Your task to perform on an android device: turn off translation in the chrome app Image 0: 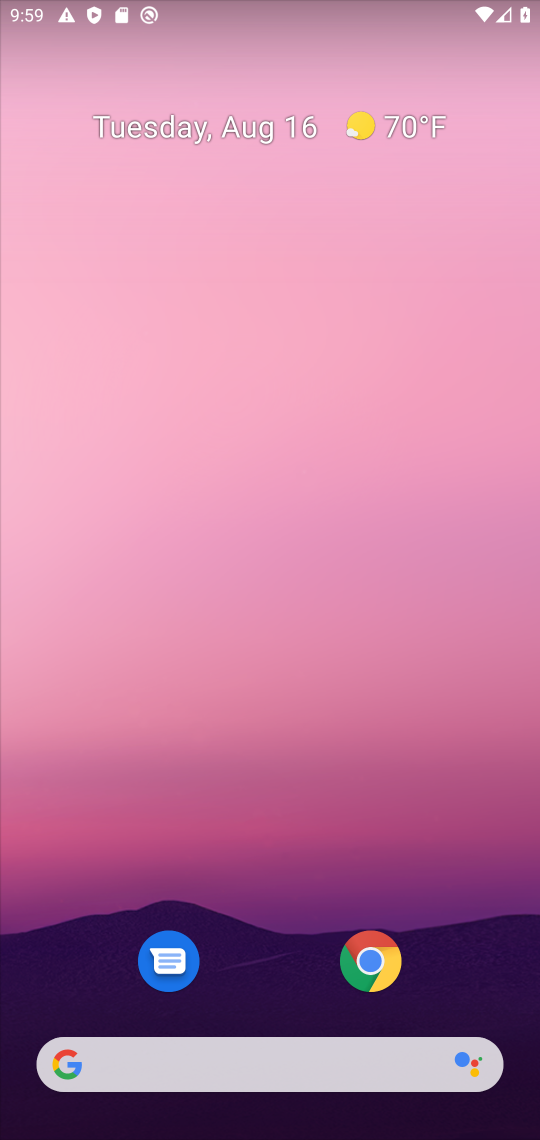
Step 0: click (372, 953)
Your task to perform on an android device: turn off translation in the chrome app Image 1: 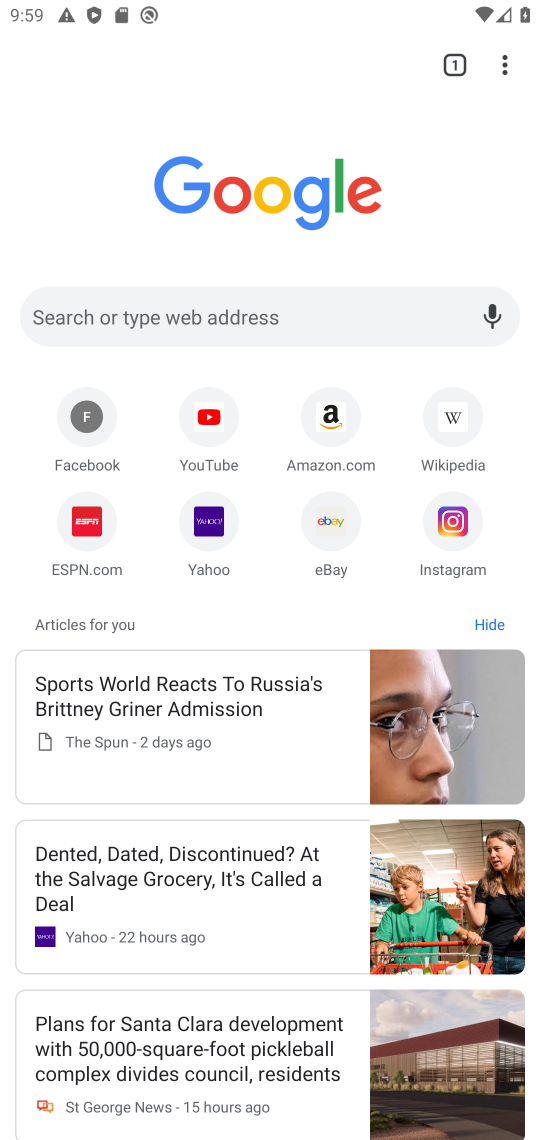
Step 1: click (518, 75)
Your task to perform on an android device: turn off translation in the chrome app Image 2: 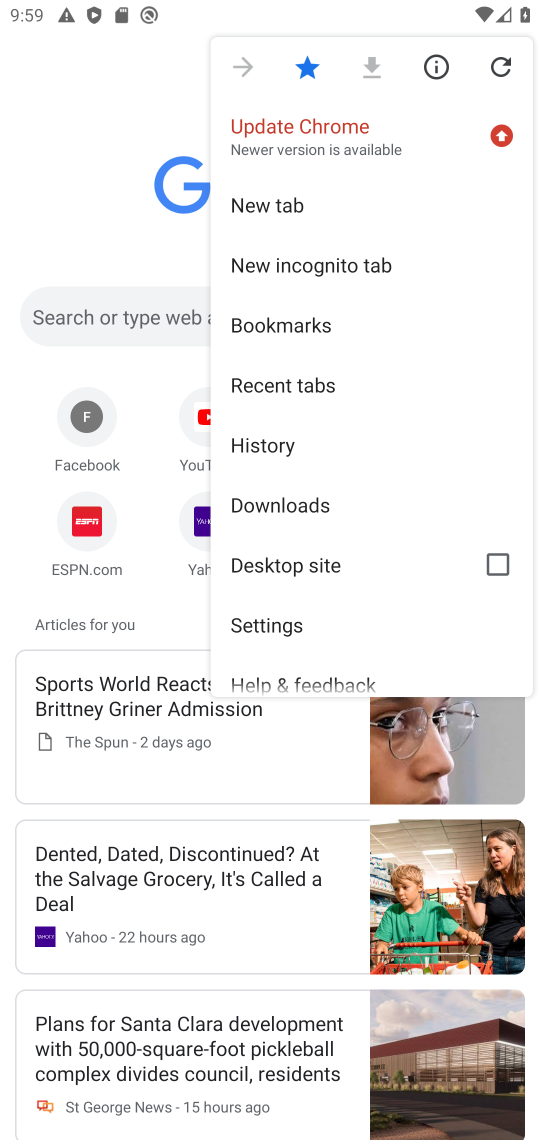
Step 2: task complete